Your task to perform on an android device: Toggle the flashlight Image 0: 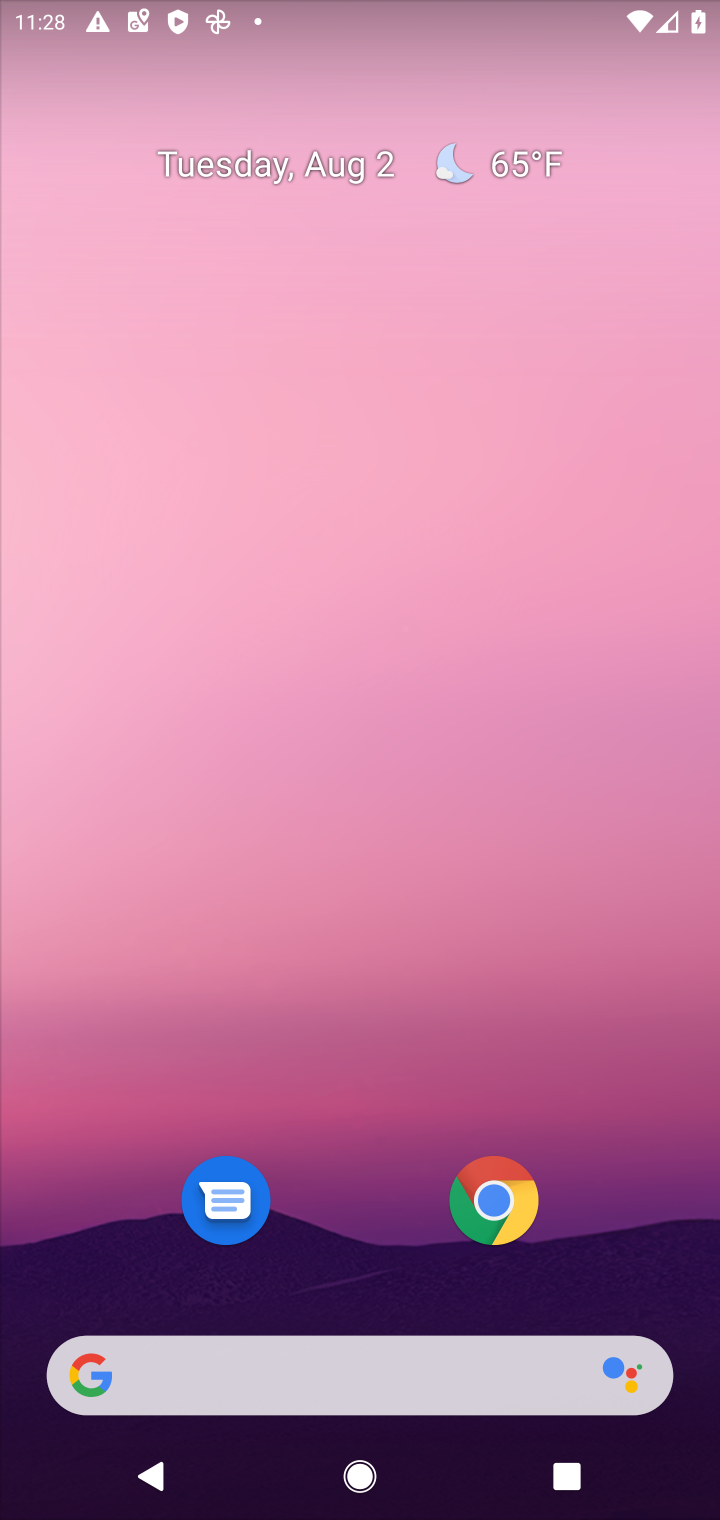
Step 0: drag from (395, 36) to (466, 892)
Your task to perform on an android device: Toggle the flashlight Image 1: 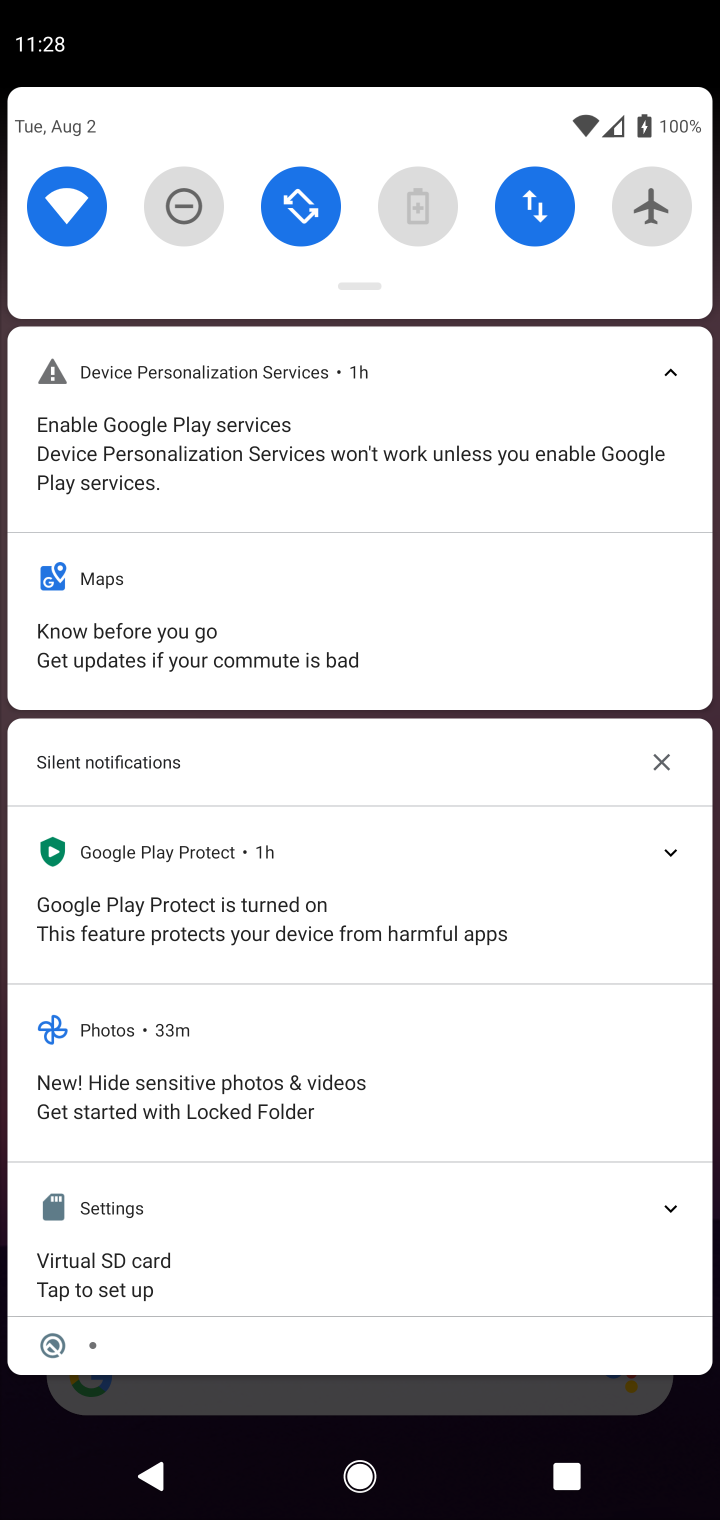
Step 1: drag from (348, 282) to (397, 1110)
Your task to perform on an android device: Toggle the flashlight Image 2: 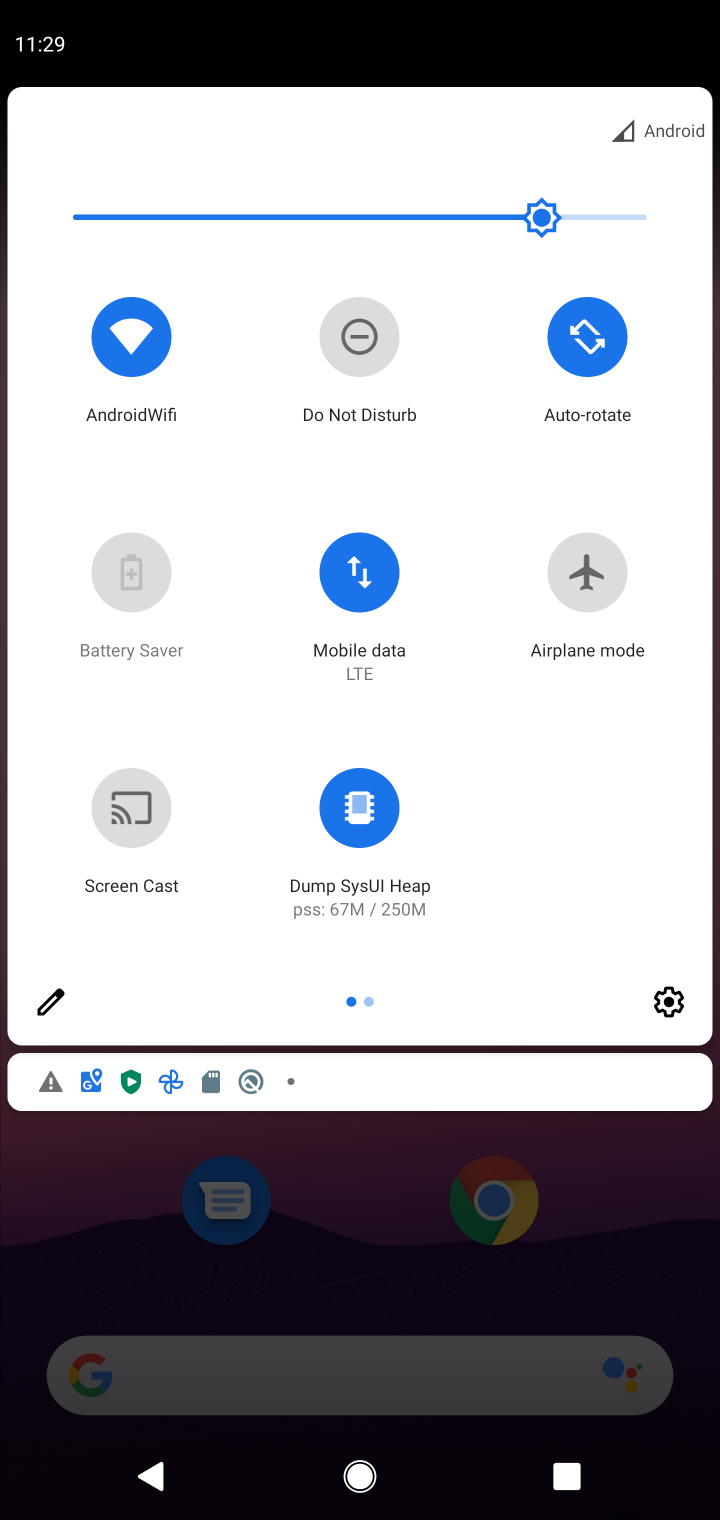
Step 2: click (34, 1001)
Your task to perform on an android device: Toggle the flashlight Image 3: 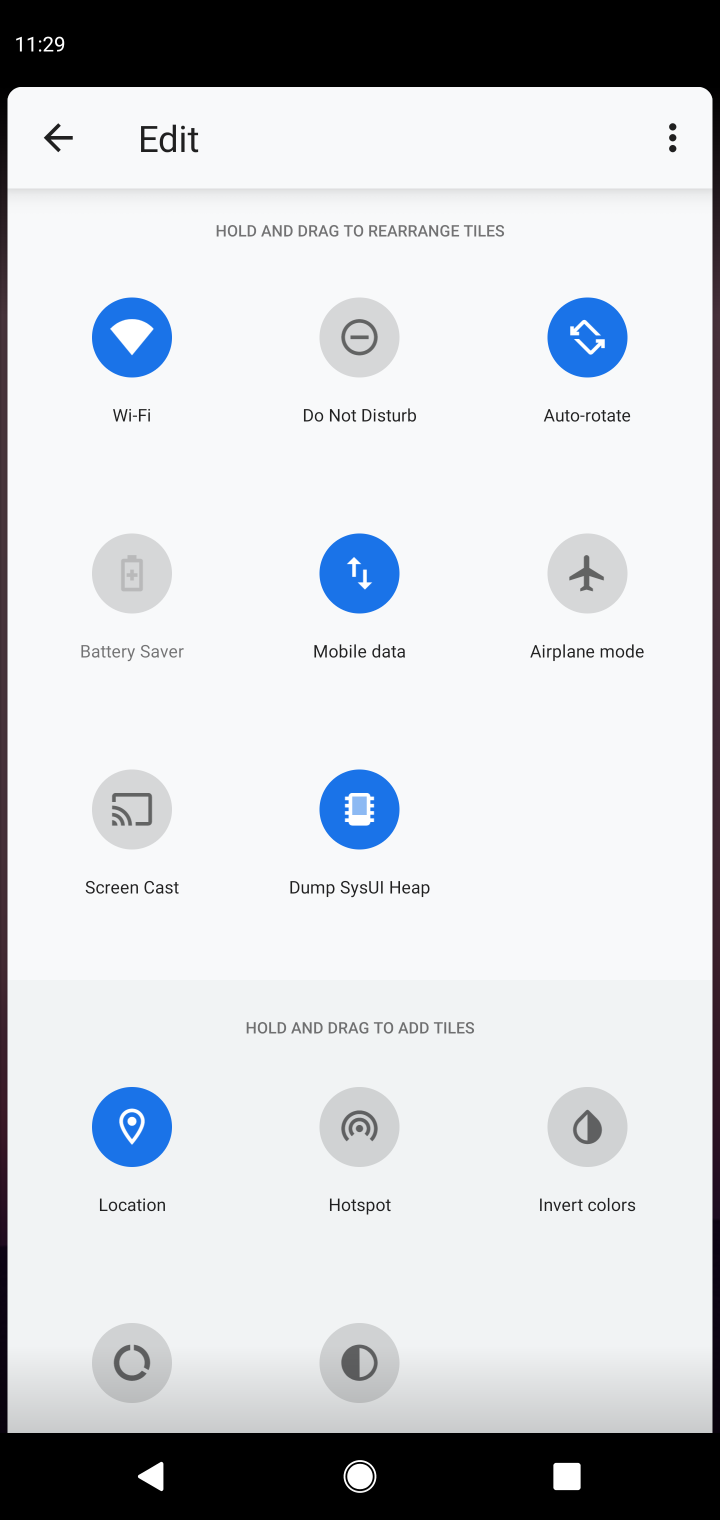
Step 3: task complete